Your task to perform on an android device: change the clock display to digital Image 0: 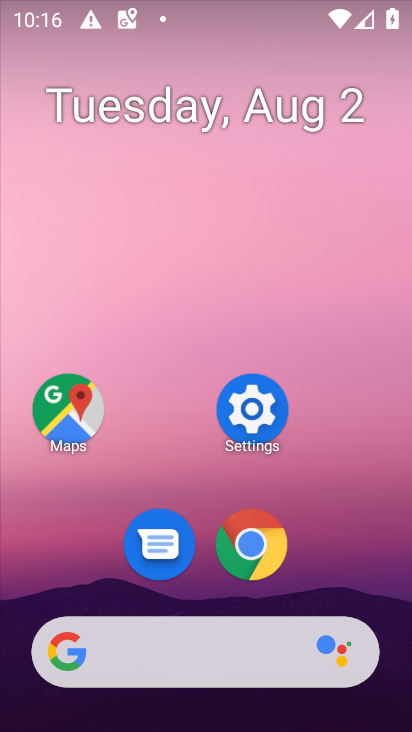
Step 0: press home button
Your task to perform on an android device: change the clock display to digital Image 1: 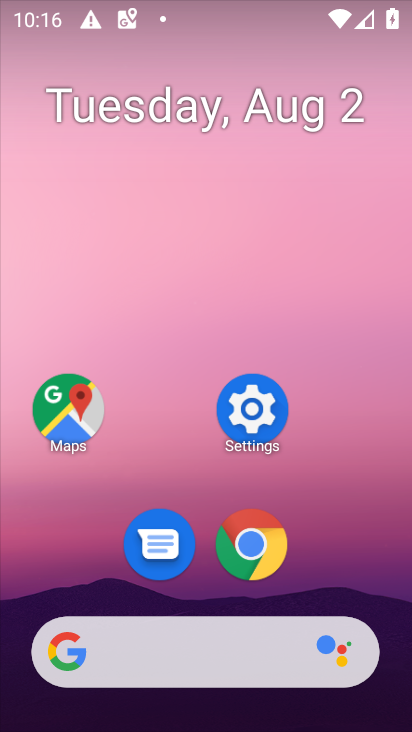
Step 1: drag from (194, 662) to (384, 87)
Your task to perform on an android device: change the clock display to digital Image 2: 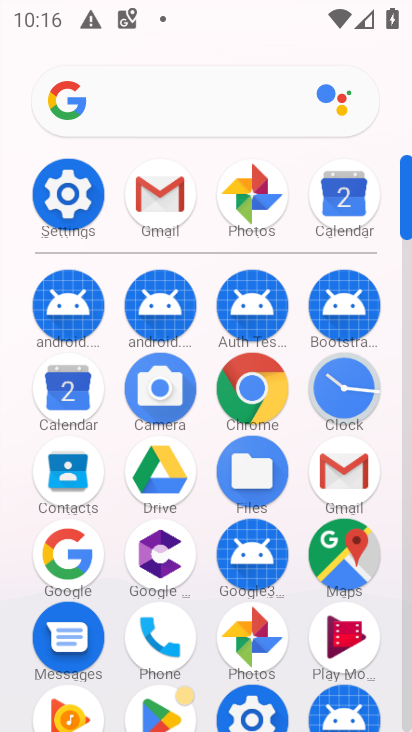
Step 2: click (352, 389)
Your task to perform on an android device: change the clock display to digital Image 3: 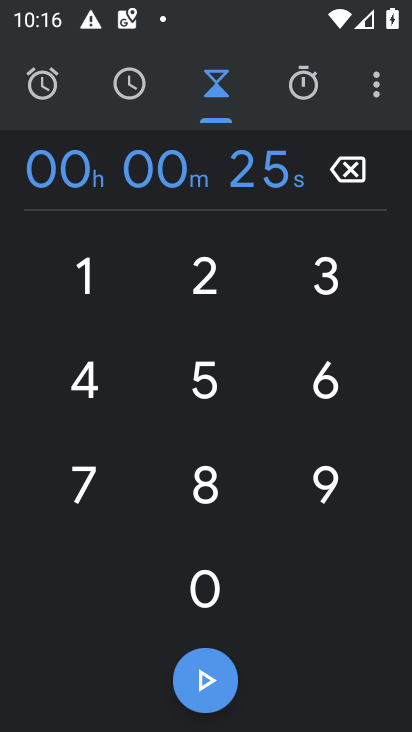
Step 3: click (378, 80)
Your task to perform on an android device: change the clock display to digital Image 4: 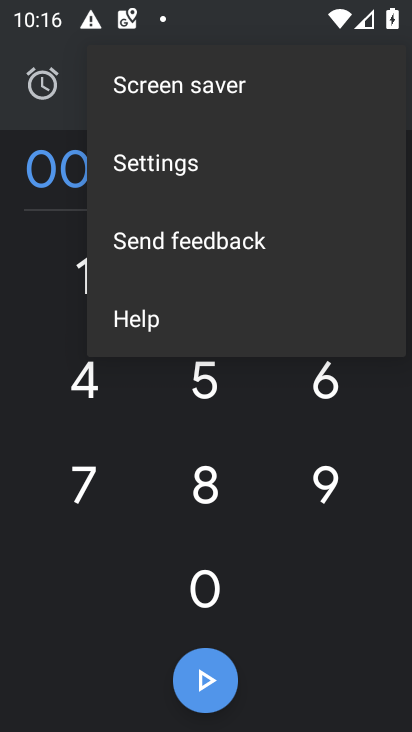
Step 4: click (153, 169)
Your task to perform on an android device: change the clock display to digital Image 5: 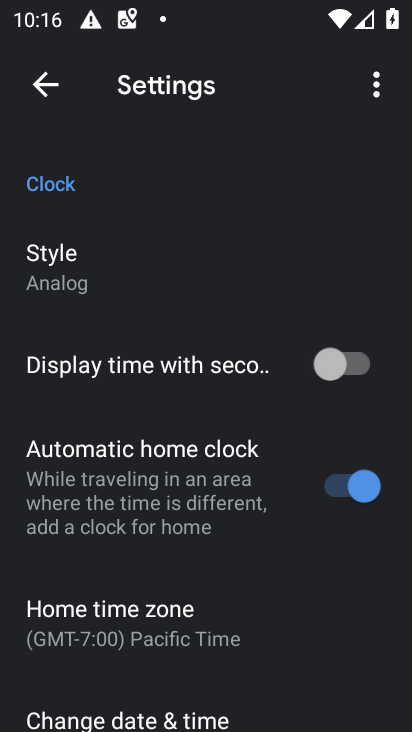
Step 5: click (66, 288)
Your task to perform on an android device: change the clock display to digital Image 6: 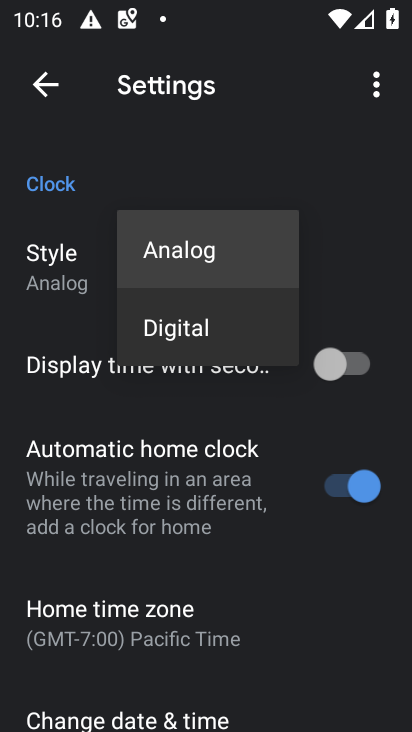
Step 6: click (154, 322)
Your task to perform on an android device: change the clock display to digital Image 7: 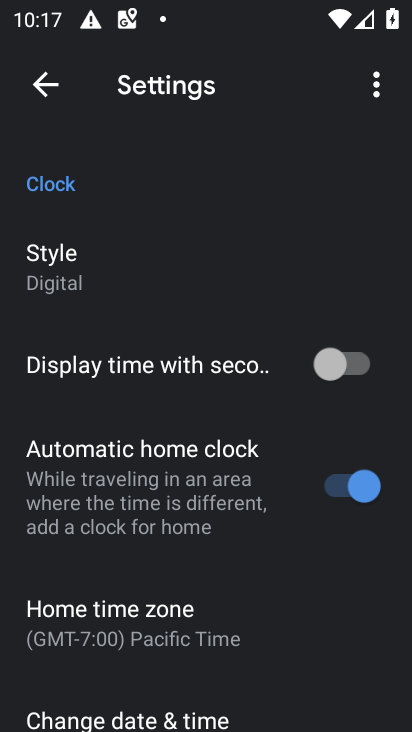
Step 7: task complete